Your task to perform on an android device: Go to Reddit.com Image 0: 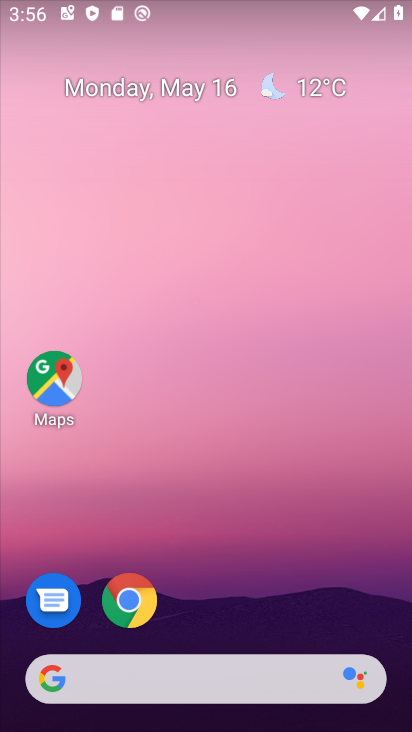
Step 0: drag from (170, 554) to (207, 274)
Your task to perform on an android device: Go to Reddit.com Image 1: 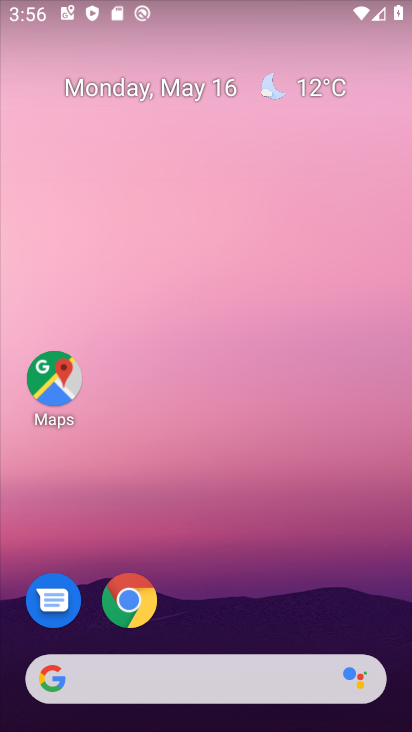
Step 1: drag from (258, 654) to (282, 314)
Your task to perform on an android device: Go to Reddit.com Image 2: 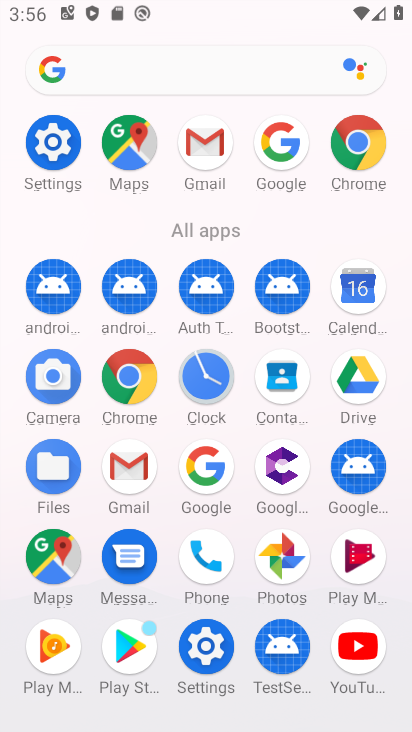
Step 2: click (277, 164)
Your task to perform on an android device: Go to Reddit.com Image 3: 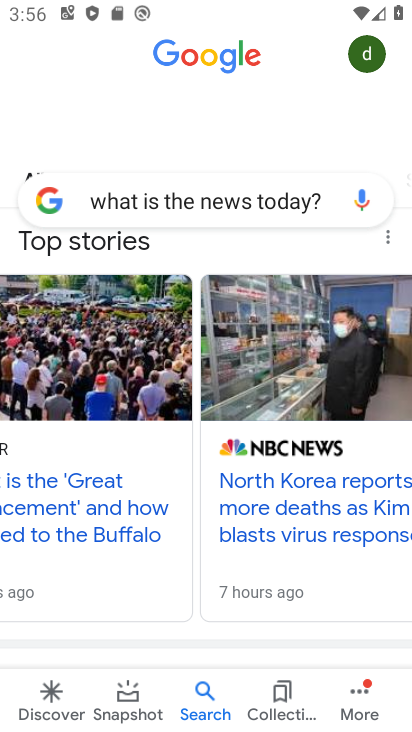
Step 3: click (326, 198)
Your task to perform on an android device: Go to Reddit.com Image 4: 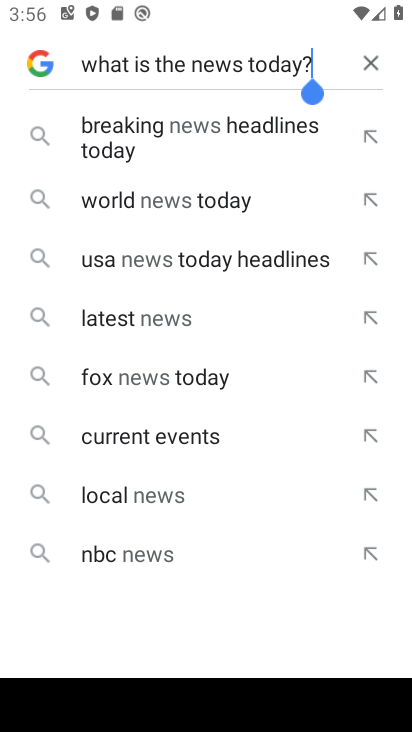
Step 4: click (368, 60)
Your task to perform on an android device: Go to Reddit.com Image 5: 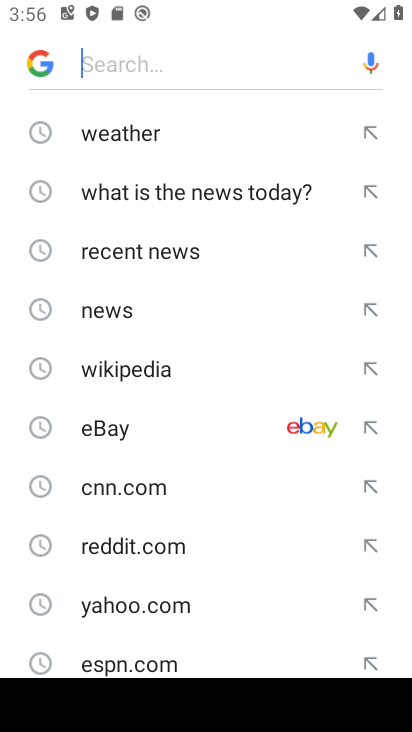
Step 5: click (152, 544)
Your task to perform on an android device: Go to Reddit.com Image 6: 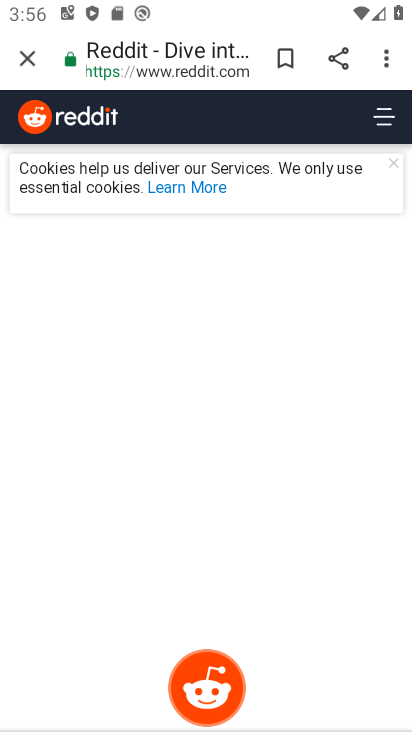
Step 6: task complete